Your task to perform on an android device: open a new tab in the chrome app Image 0: 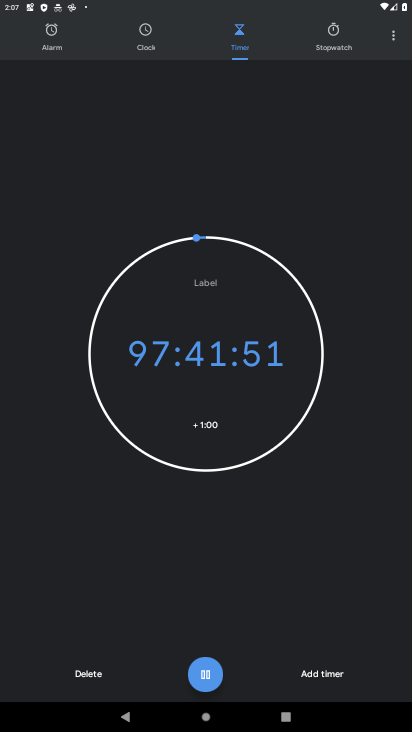
Step 0: press home button
Your task to perform on an android device: open a new tab in the chrome app Image 1: 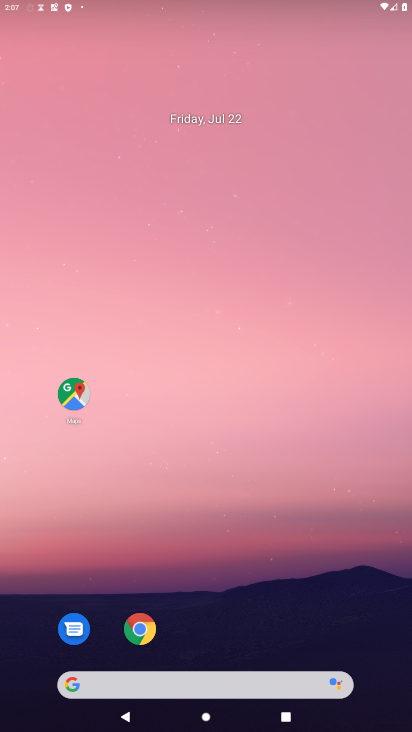
Step 1: drag from (246, 676) to (180, 74)
Your task to perform on an android device: open a new tab in the chrome app Image 2: 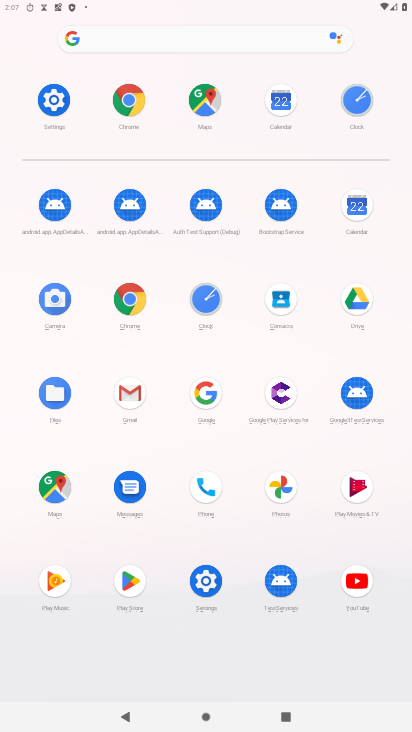
Step 2: click (143, 297)
Your task to perform on an android device: open a new tab in the chrome app Image 3: 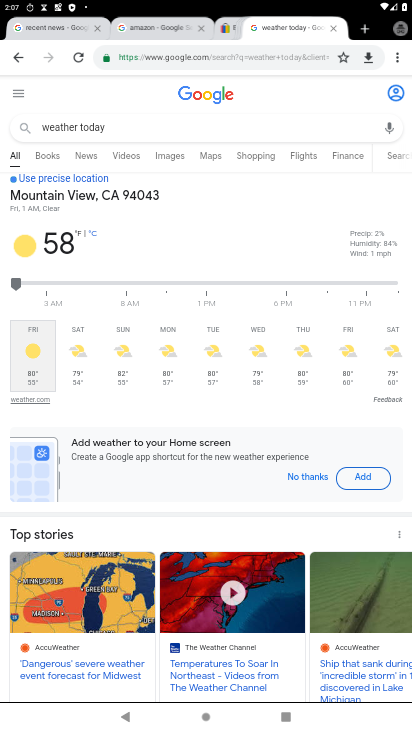
Step 3: task complete